Your task to perform on an android device: add a contact in the contacts app Image 0: 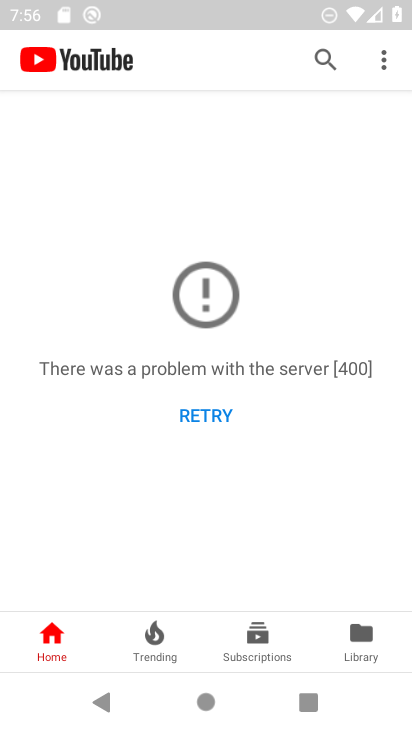
Step 0: press home button
Your task to perform on an android device: add a contact in the contacts app Image 1: 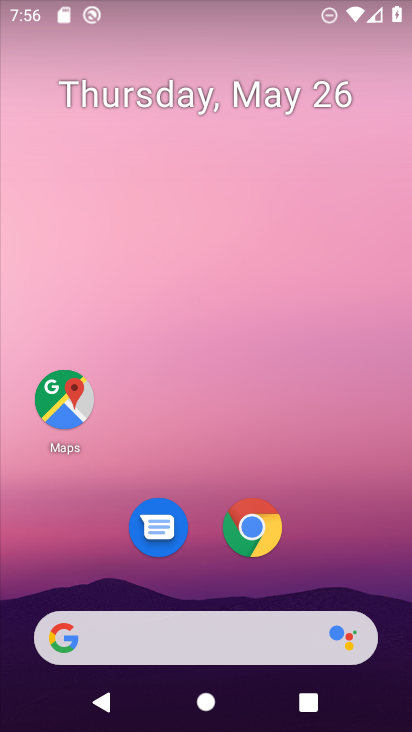
Step 1: drag from (95, 461) to (92, 666)
Your task to perform on an android device: add a contact in the contacts app Image 2: 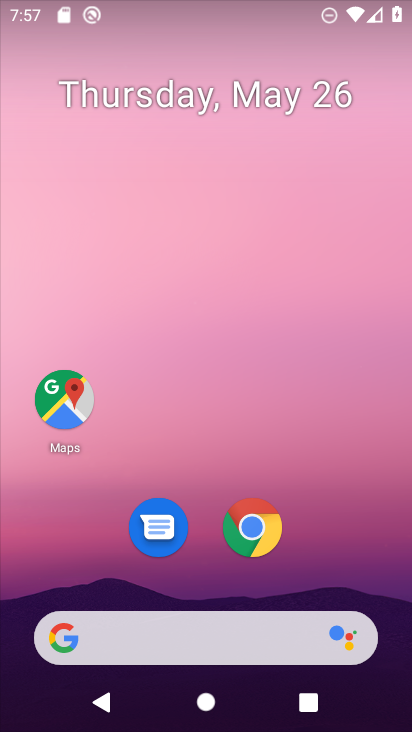
Step 2: drag from (10, 615) to (270, 126)
Your task to perform on an android device: add a contact in the contacts app Image 3: 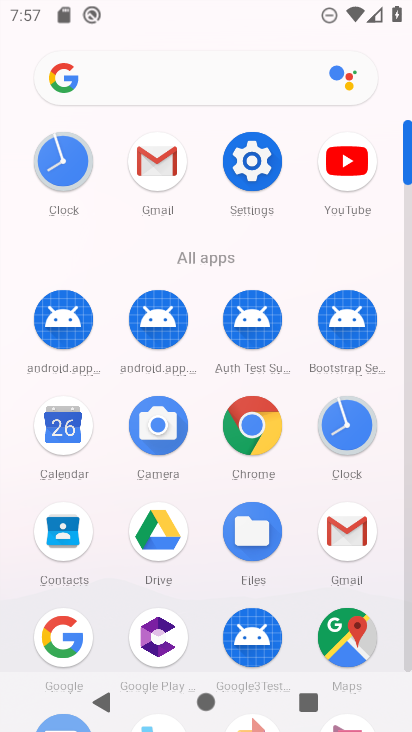
Step 3: drag from (0, 609) to (230, 96)
Your task to perform on an android device: add a contact in the contacts app Image 4: 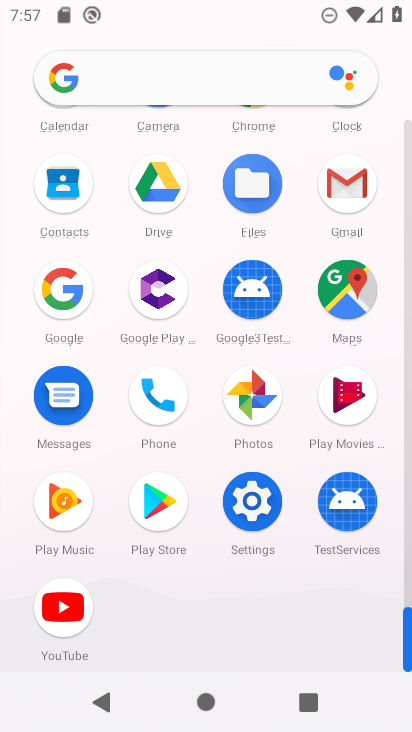
Step 4: click (158, 400)
Your task to perform on an android device: add a contact in the contacts app Image 5: 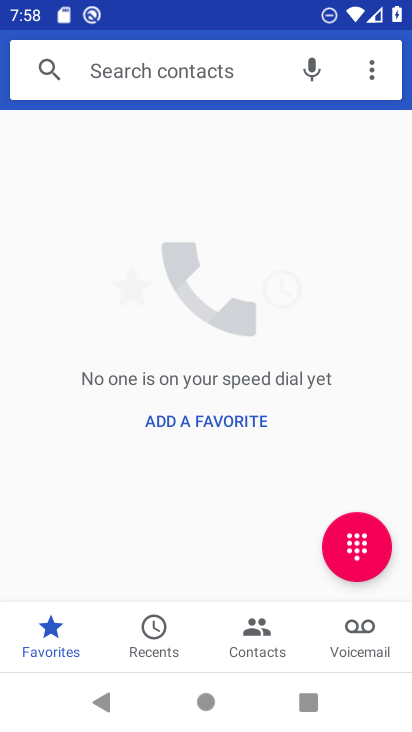
Step 5: click (377, 68)
Your task to perform on an android device: add a contact in the contacts app Image 6: 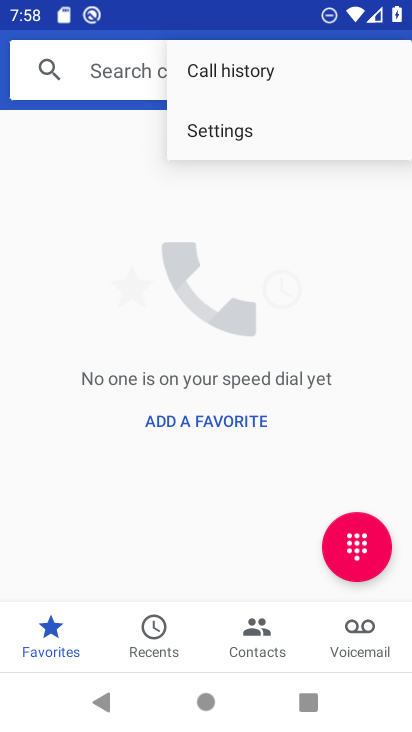
Step 6: click (231, 333)
Your task to perform on an android device: add a contact in the contacts app Image 7: 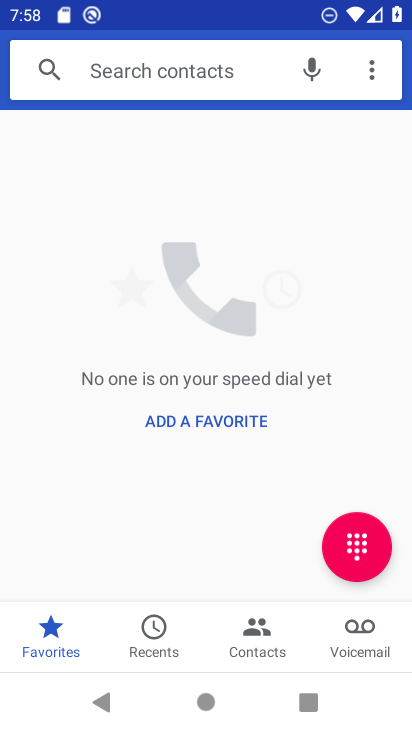
Step 7: click (265, 634)
Your task to perform on an android device: add a contact in the contacts app Image 8: 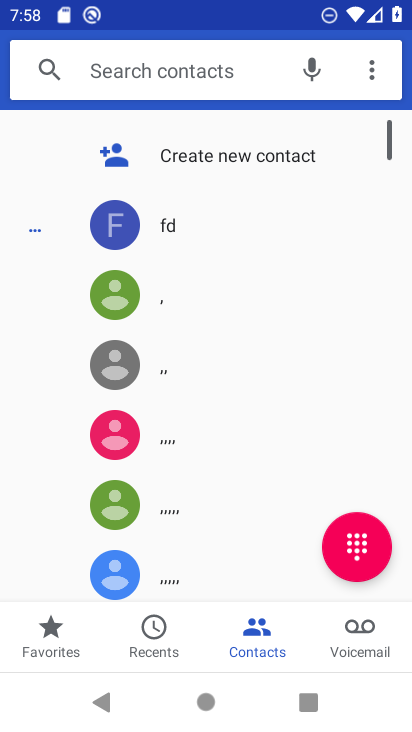
Step 8: click (219, 154)
Your task to perform on an android device: add a contact in the contacts app Image 9: 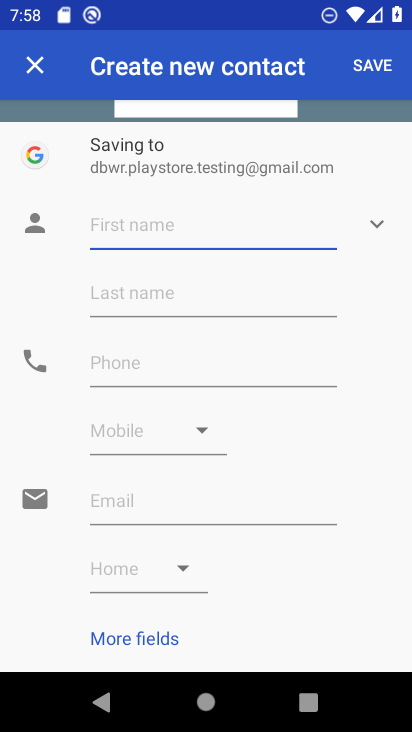
Step 9: click (208, 227)
Your task to perform on an android device: add a contact in the contacts app Image 10: 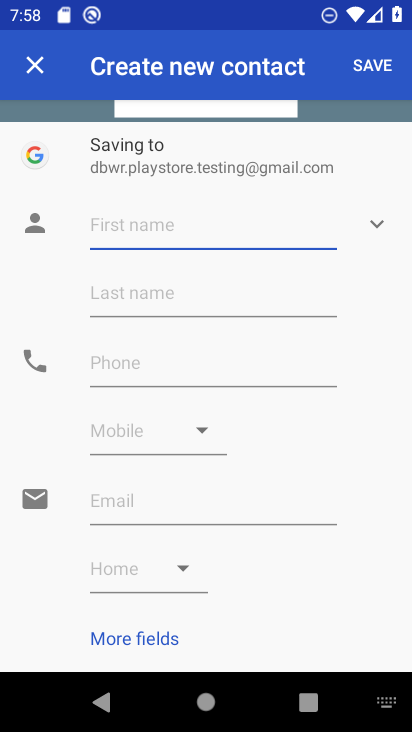
Step 10: type "nbghgfd"
Your task to perform on an android device: add a contact in the contacts app Image 11: 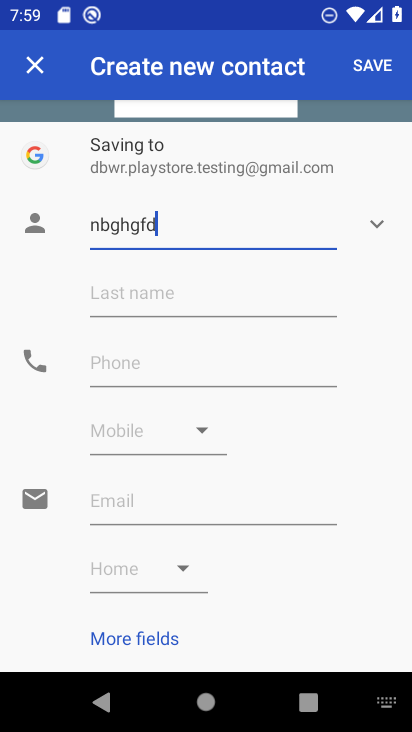
Step 11: type ""
Your task to perform on an android device: add a contact in the contacts app Image 12: 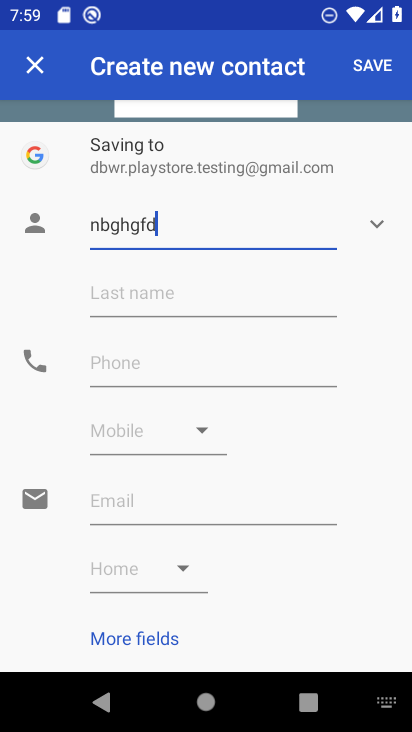
Step 12: click (357, 28)
Your task to perform on an android device: add a contact in the contacts app Image 13: 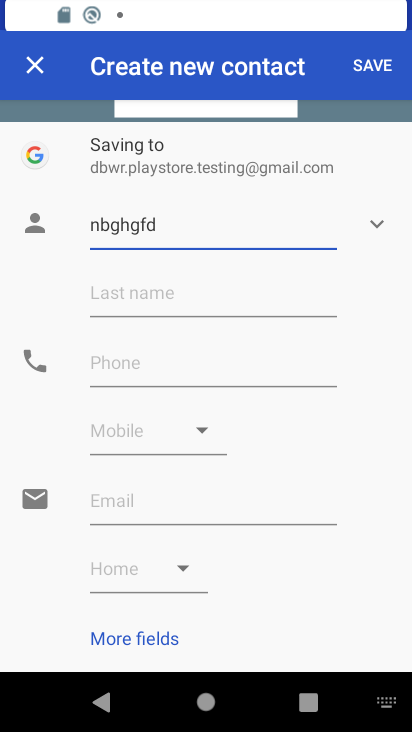
Step 13: click (363, 51)
Your task to perform on an android device: add a contact in the contacts app Image 14: 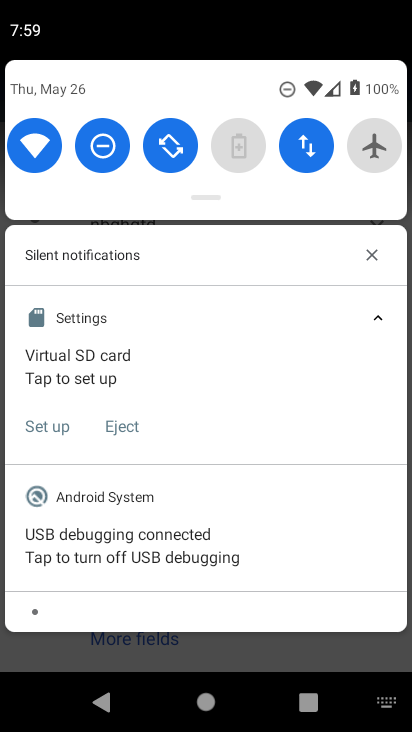
Step 14: click (374, 79)
Your task to perform on an android device: add a contact in the contacts app Image 15: 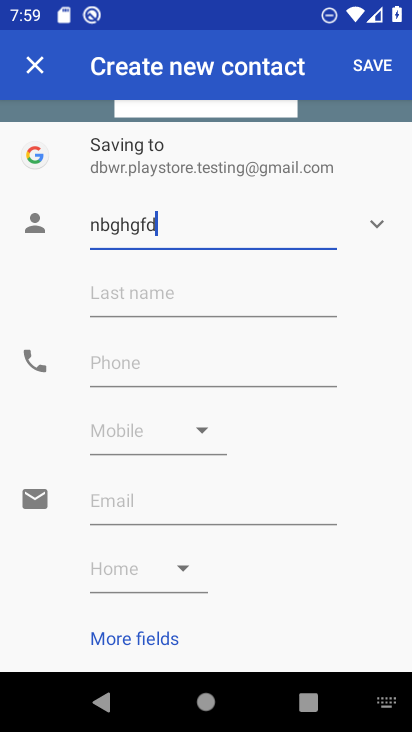
Step 15: click (376, 70)
Your task to perform on an android device: add a contact in the contacts app Image 16: 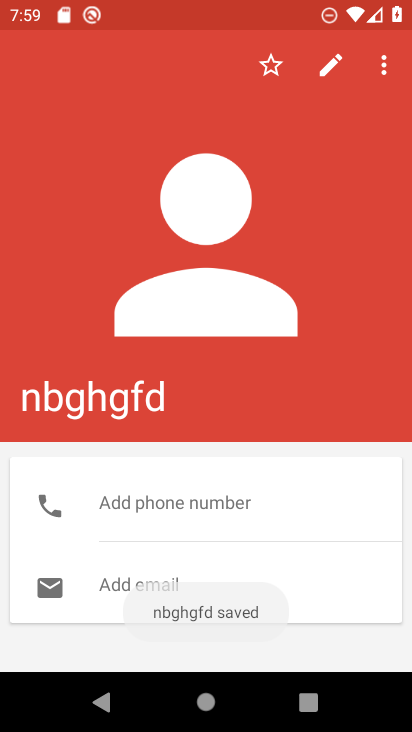
Step 16: task complete